Your task to perform on an android device: turn on location history Image 0: 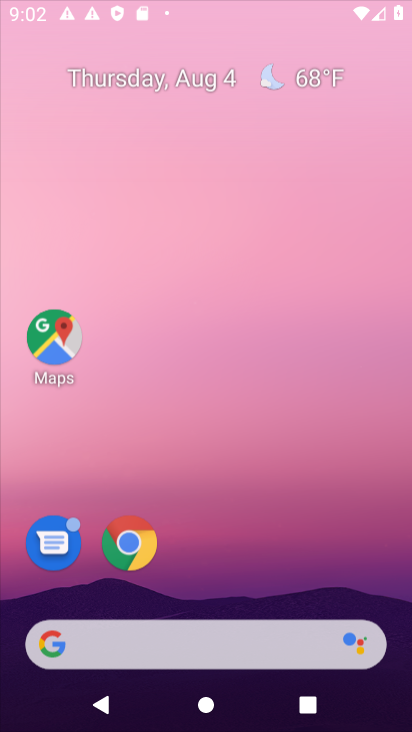
Step 0: press home button
Your task to perform on an android device: turn on location history Image 1: 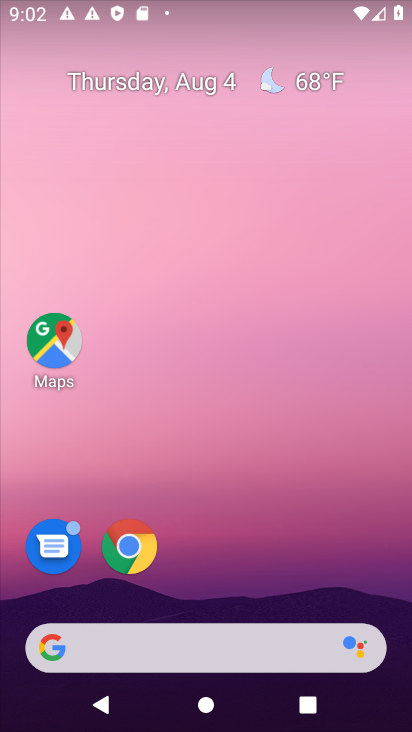
Step 1: drag from (227, 608) to (197, 192)
Your task to perform on an android device: turn on location history Image 2: 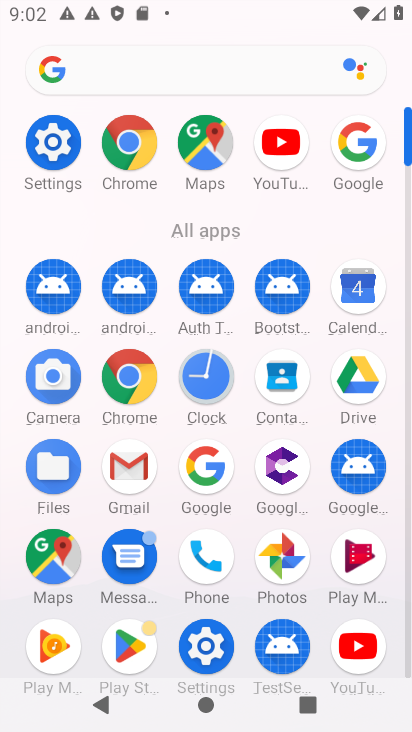
Step 2: click (61, 138)
Your task to perform on an android device: turn on location history Image 3: 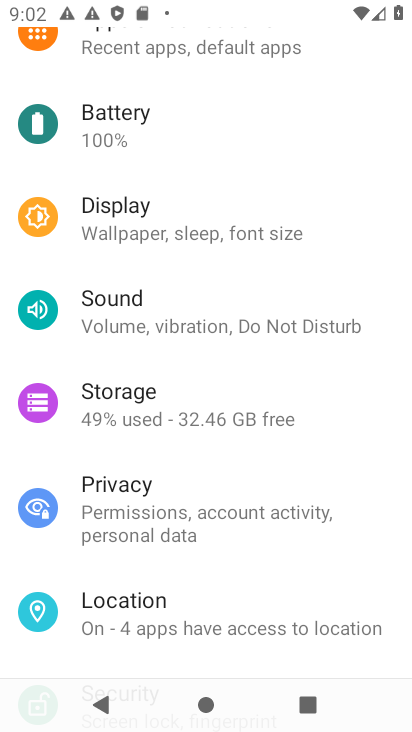
Step 3: click (132, 605)
Your task to perform on an android device: turn on location history Image 4: 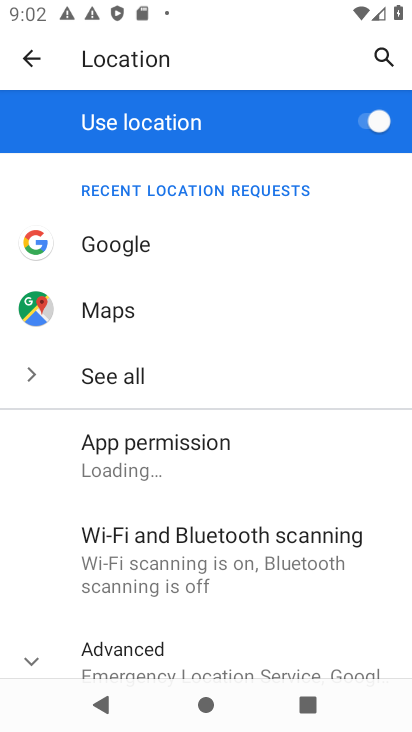
Step 4: click (122, 666)
Your task to perform on an android device: turn on location history Image 5: 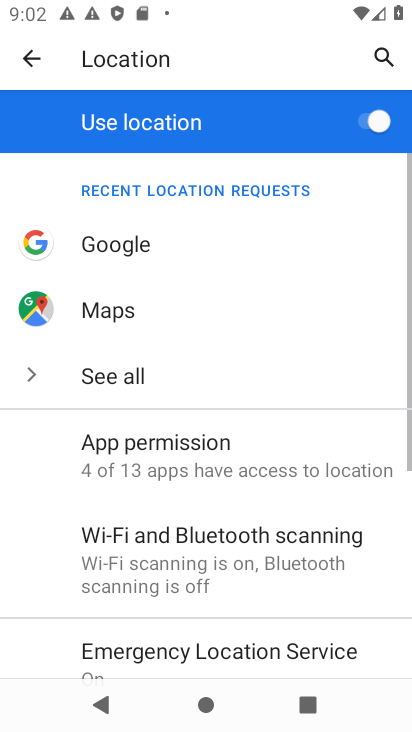
Step 5: drag from (256, 620) to (284, 125)
Your task to perform on an android device: turn on location history Image 6: 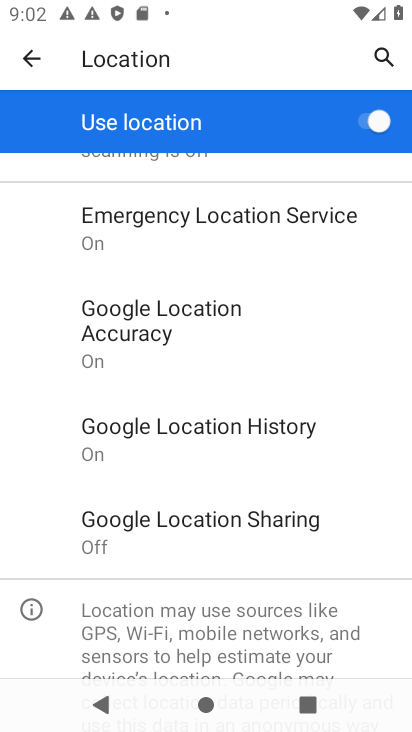
Step 6: click (226, 426)
Your task to perform on an android device: turn on location history Image 7: 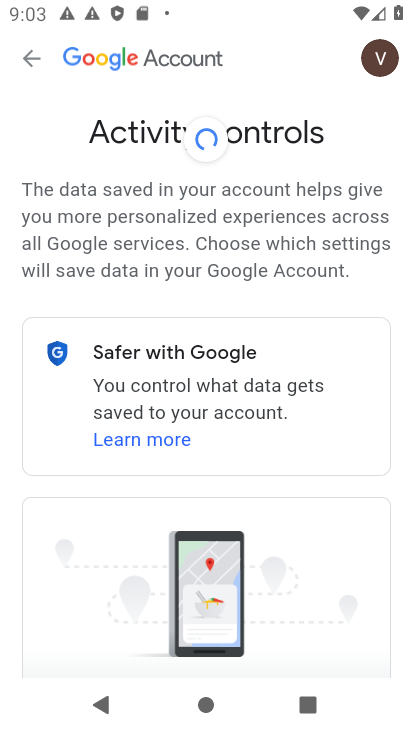
Step 7: task complete